Your task to perform on an android device: View the shopping cart on costco. Add logitech g pro to the cart on costco Image 0: 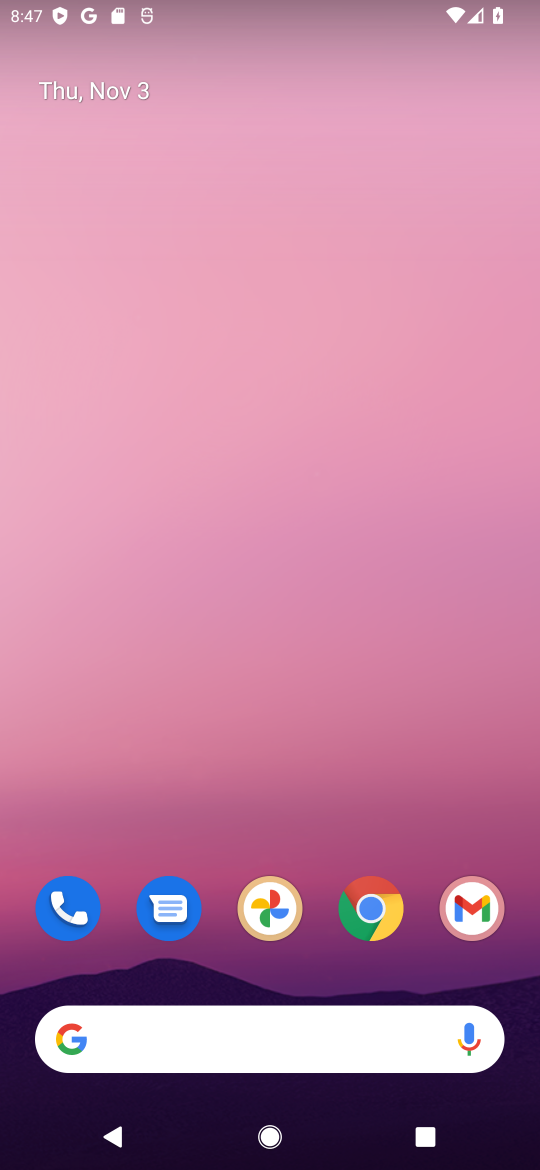
Step 0: click (359, 910)
Your task to perform on an android device: View the shopping cart on costco. Add logitech g pro to the cart on costco Image 1: 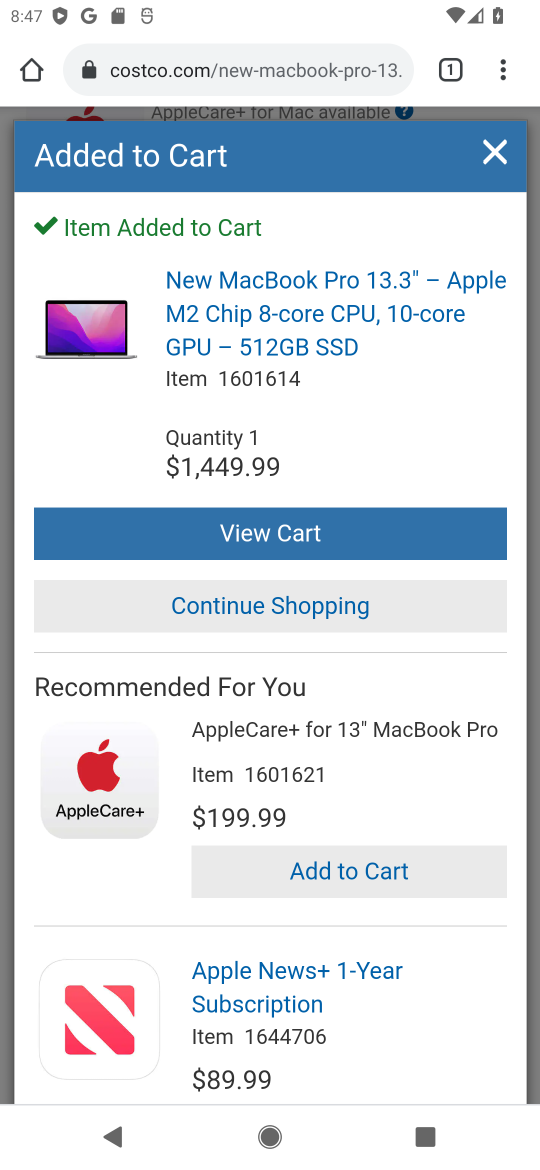
Step 1: click (496, 157)
Your task to perform on an android device: View the shopping cart on costco. Add logitech g pro to the cart on costco Image 2: 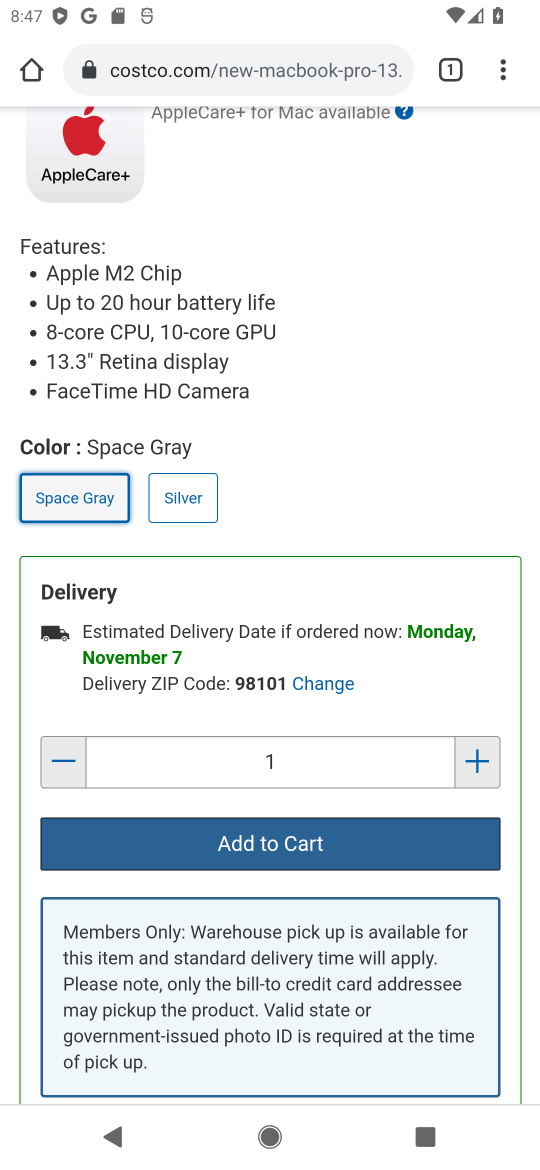
Step 2: drag from (400, 225) to (310, 1048)
Your task to perform on an android device: View the shopping cart on costco. Add logitech g pro to the cart on costco Image 3: 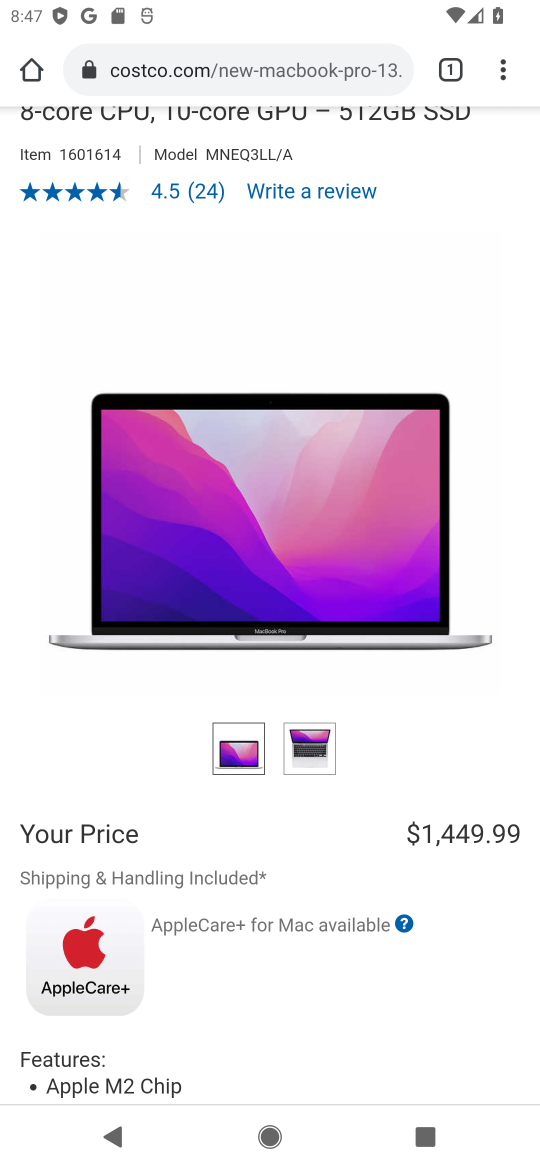
Step 3: drag from (384, 419) to (413, 893)
Your task to perform on an android device: View the shopping cart on costco. Add logitech g pro to the cart on costco Image 4: 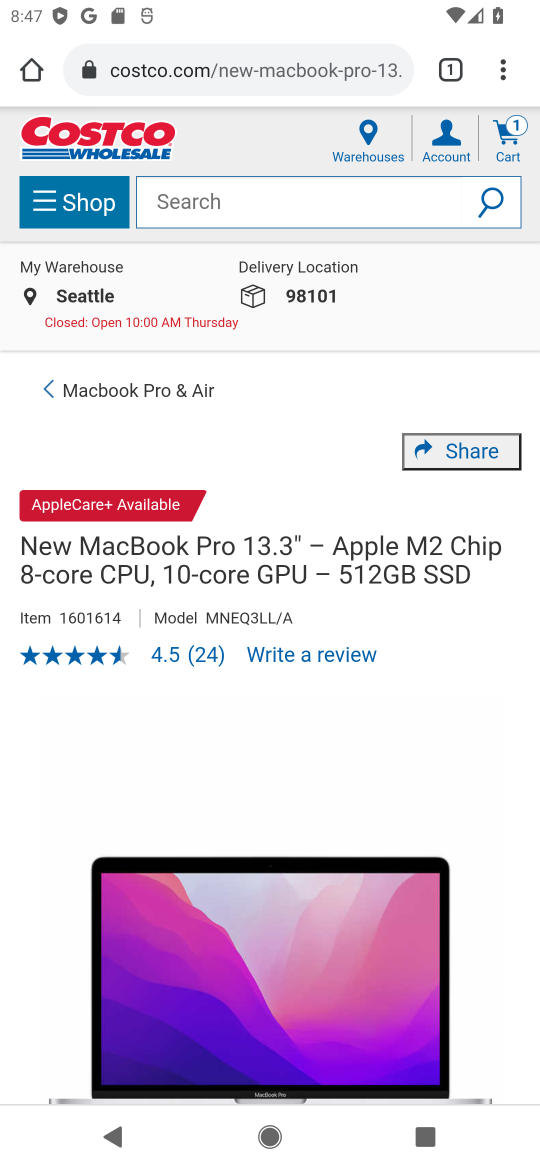
Step 4: click (500, 142)
Your task to perform on an android device: View the shopping cart on costco. Add logitech g pro to the cart on costco Image 5: 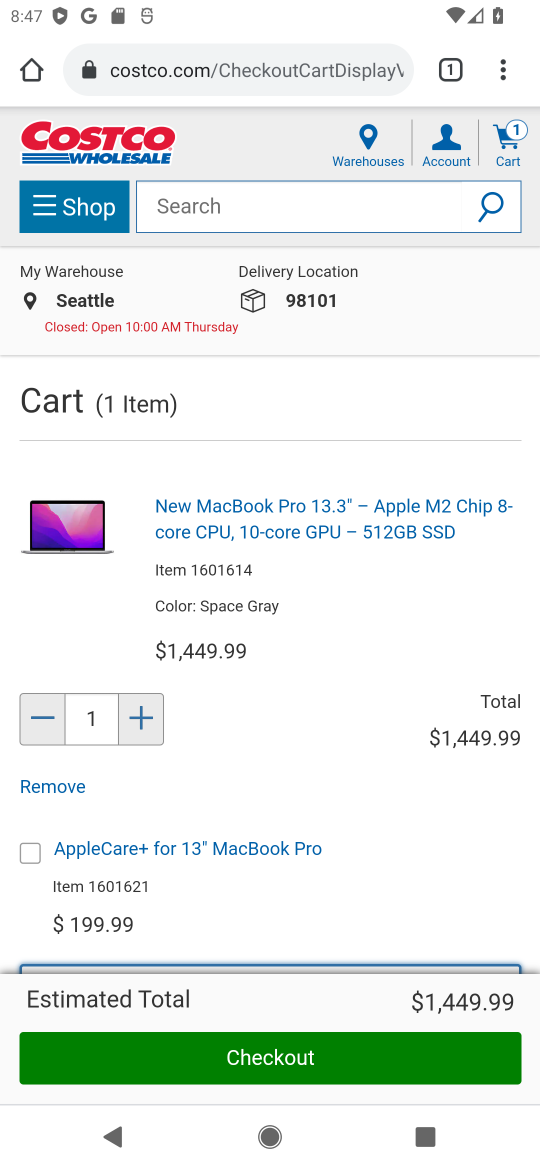
Step 5: click (306, 203)
Your task to perform on an android device: View the shopping cart on costco. Add logitech g pro to the cart on costco Image 6: 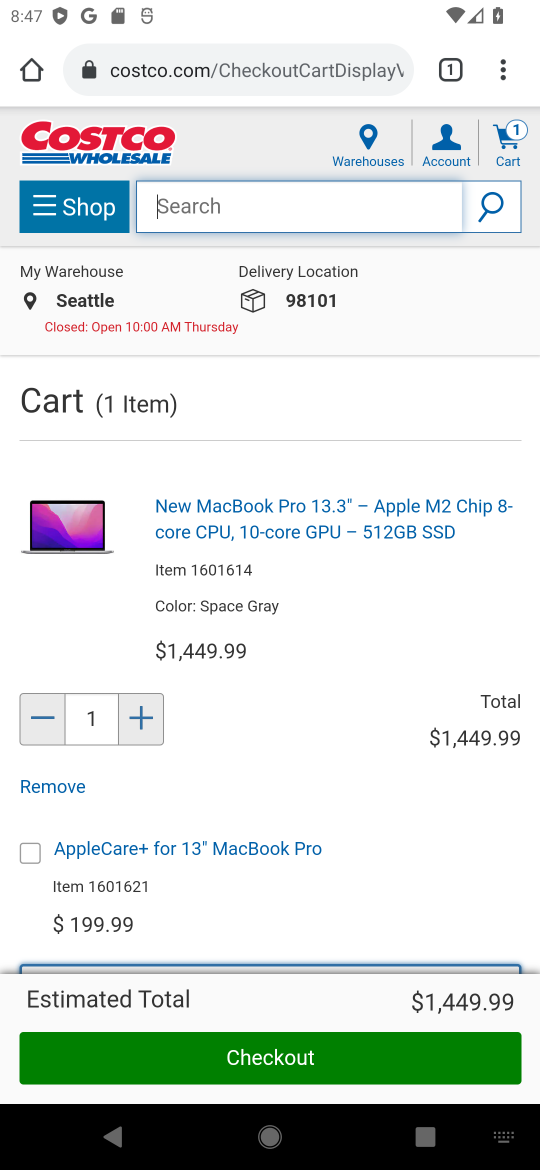
Step 6: type "logitech g pro "
Your task to perform on an android device: View the shopping cart on costco. Add logitech g pro to the cart on costco Image 7: 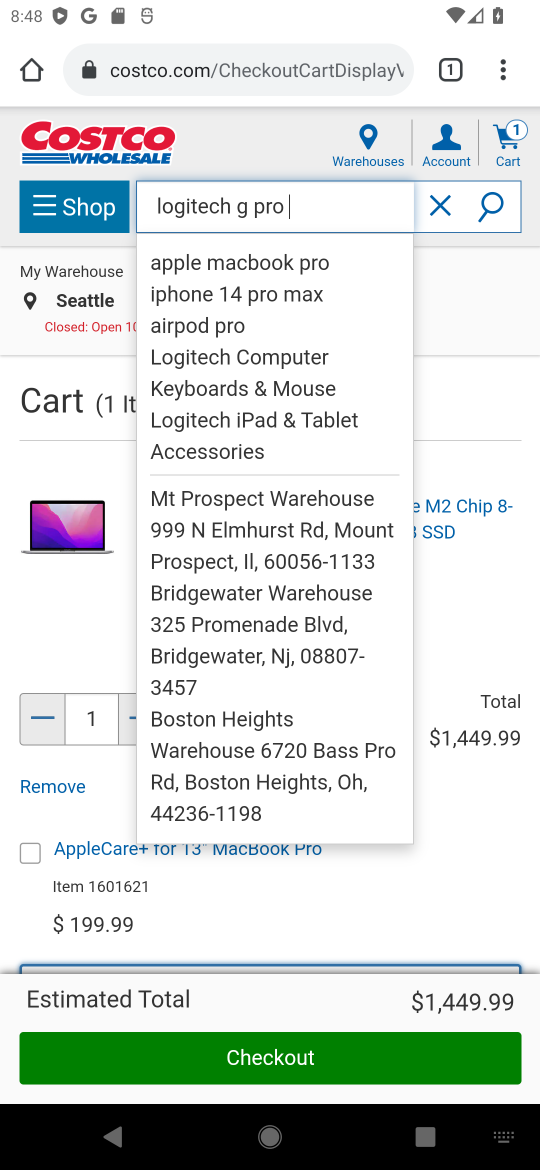
Step 7: click (495, 298)
Your task to perform on an android device: View the shopping cart on costco. Add logitech g pro to the cart on costco Image 8: 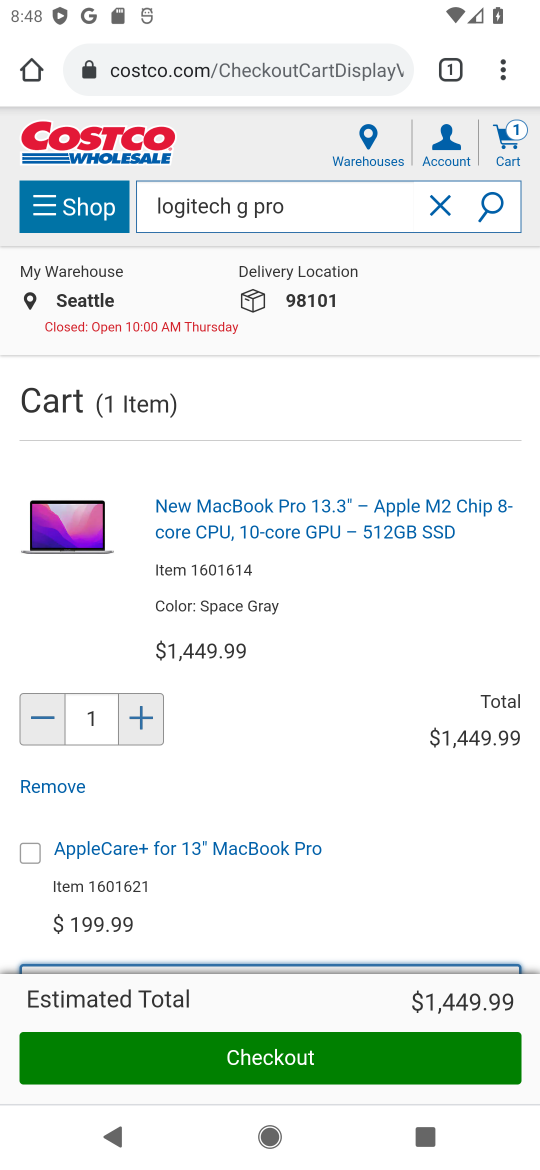
Step 8: click (447, 302)
Your task to perform on an android device: View the shopping cart on costco. Add logitech g pro to the cart on costco Image 9: 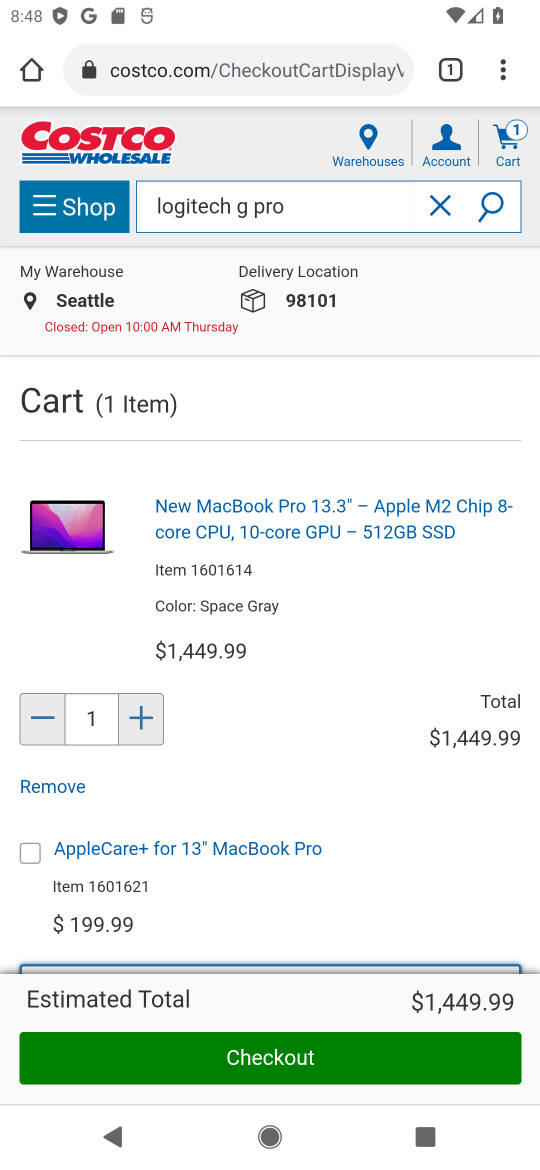
Step 9: task complete